Your task to perform on an android device: toggle pop-ups in chrome Image 0: 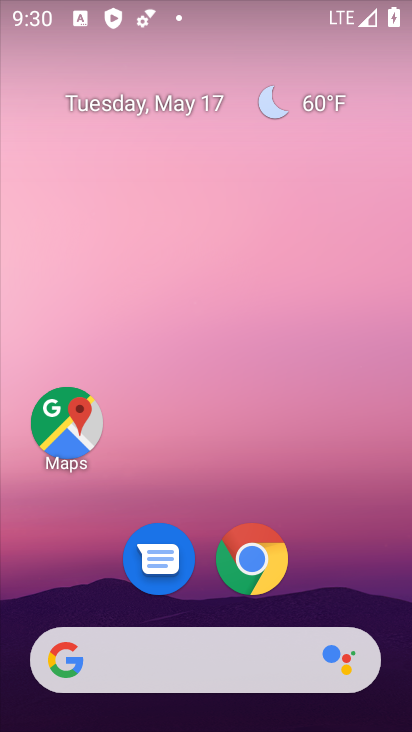
Step 0: click (256, 560)
Your task to perform on an android device: toggle pop-ups in chrome Image 1: 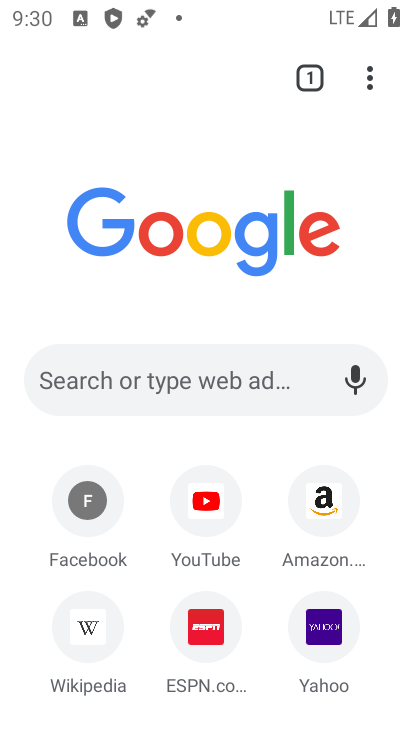
Step 1: drag from (367, 71) to (146, 640)
Your task to perform on an android device: toggle pop-ups in chrome Image 2: 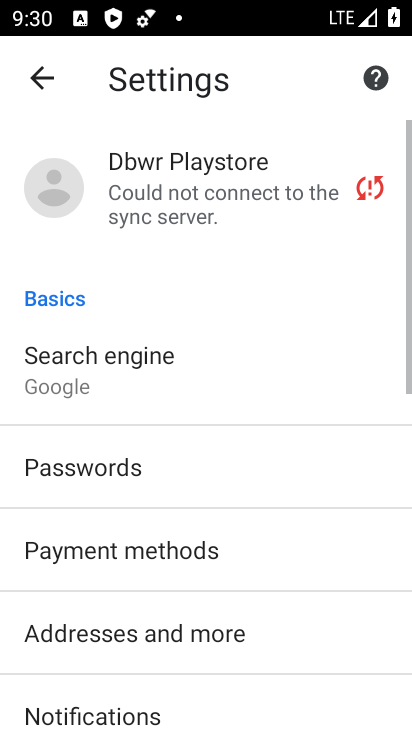
Step 2: drag from (146, 637) to (167, 381)
Your task to perform on an android device: toggle pop-ups in chrome Image 3: 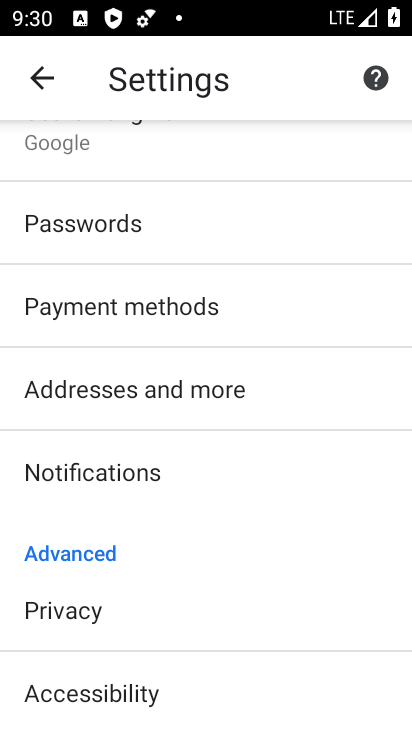
Step 3: drag from (113, 659) to (140, 427)
Your task to perform on an android device: toggle pop-ups in chrome Image 4: 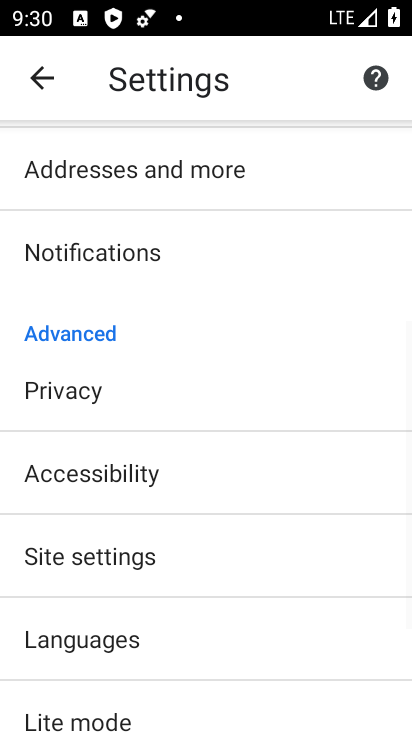
Step 4: click (100, 522)
Your task to perform on an android device: toggle pop-ups in chrome Image 5: 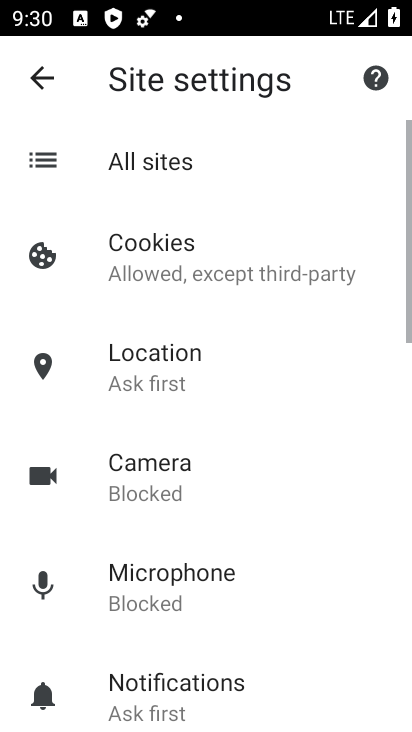
Step 5: drag from (170, 640) to (207, 372)
Your task to perform on an android device: toggle pop-ups in chrome Image 6: 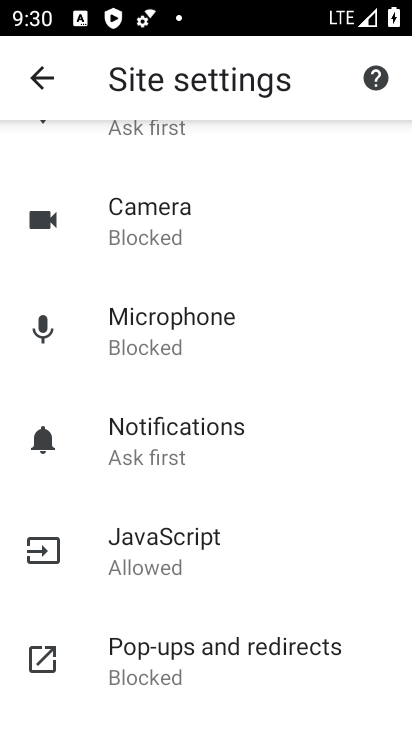
Step 6: click (190, 628)
Your task to perform on an android device: toggle pop-ups in chrome Image 7: 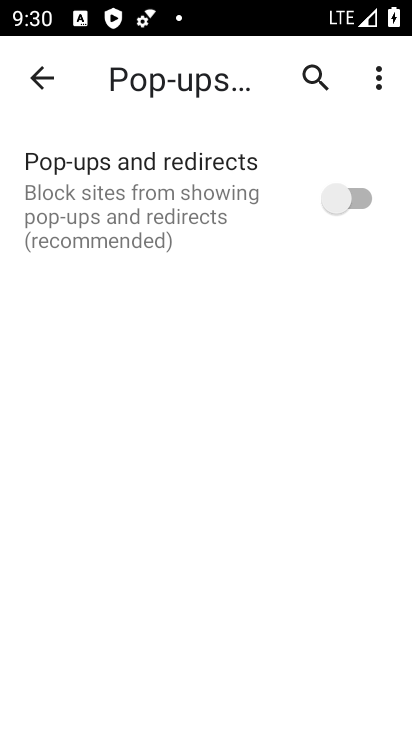
Step 7: click (357, 198)
Your task to perform on an android device: toggle pop-ups in chrome Image 8: 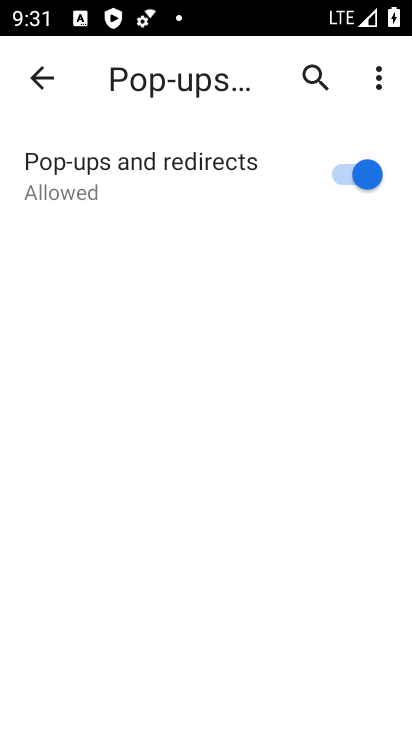
Step 8: task complete